Your task to perform on an android device: empty trash in the gmail app Image 0: 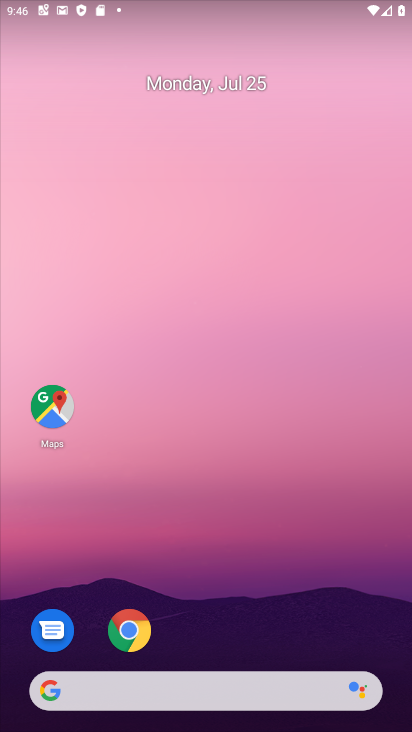
Step 0: press home button
Your task to perform on an android device: empty trash in the gmail app Image 1: 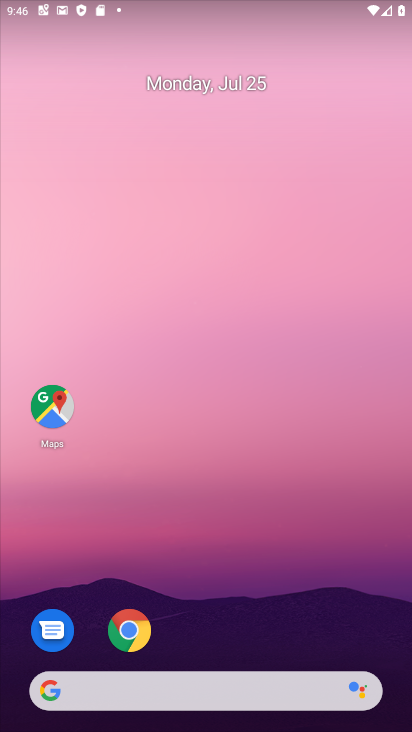
Step 1: drag from (238, 649) to (241, 189)
Your task to perform on an android device: empty trash in the gmail app Image 2: 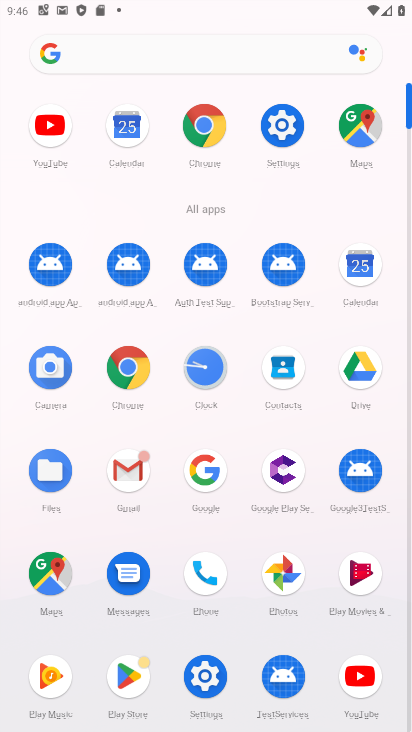
Step 2: click (128, 461)
Your task to perform on an android device: empty trash in the gmail app Image 3: 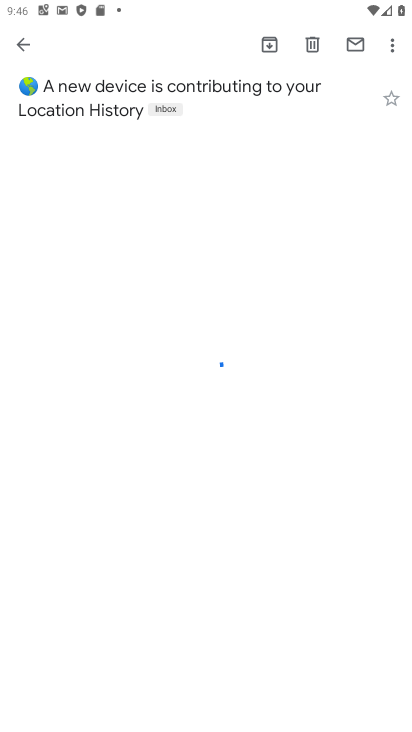
Step 3: click (24, 44)
Your task to perform on an android device: empty trash in the gmail app Image 4: 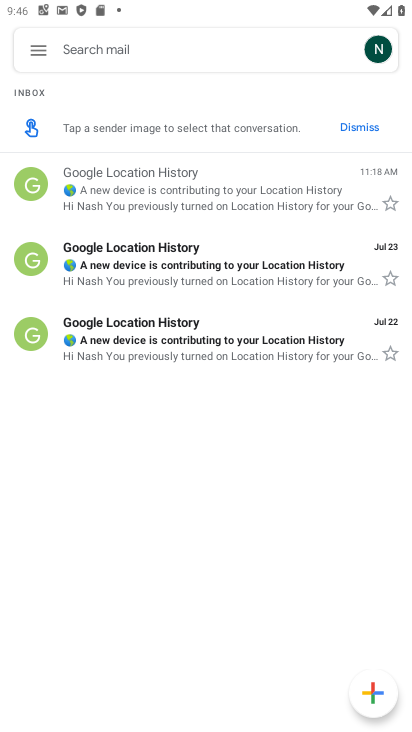
Step 4: click (24, 44)
Your task to perform on an android device: empty trash in the gmail app Image 5: 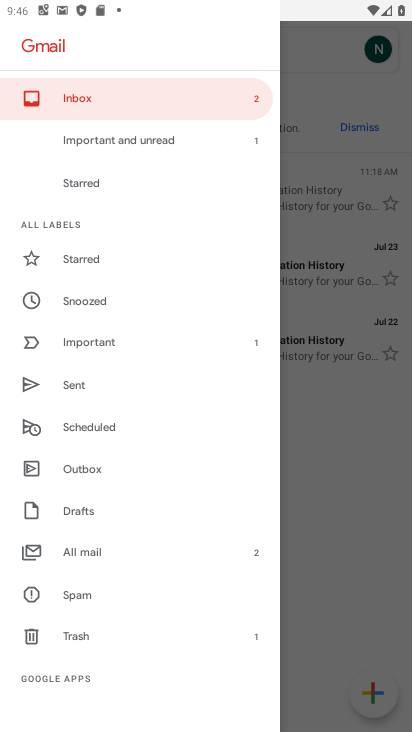
Step 5: click (76, 641)
Your task to perform on an android device: empty trash in the gmail app Image 6: 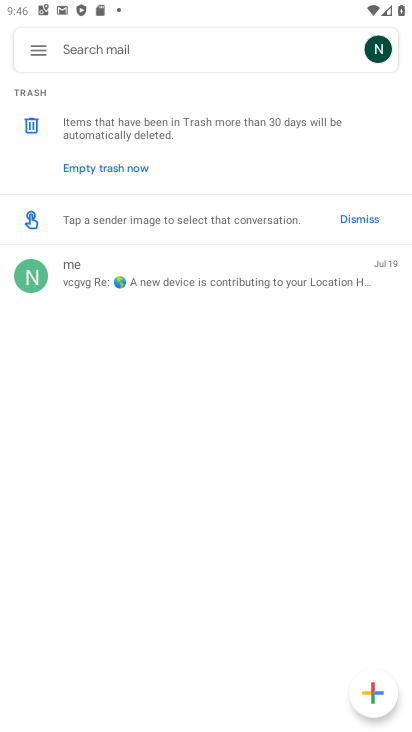
Step 6: click (34, 122)
Your task to perform on an android device: empty trash in the gmail app Image 7: 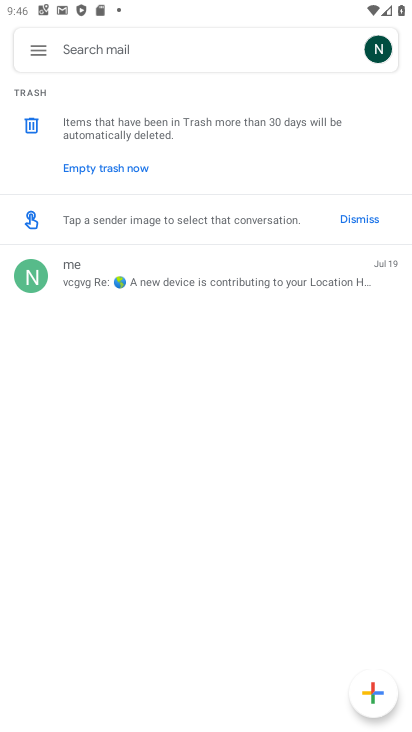
Step 7: click (116, 164)
Your task to perform on an android device: empty trash in the gmail app Image 8: 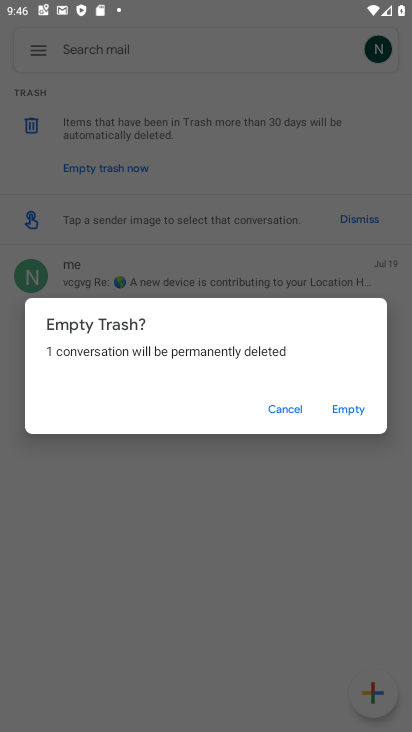
Step 8: click (345, 409)
Your task to perform on an android device: empty trash in the gmail app Image 9: 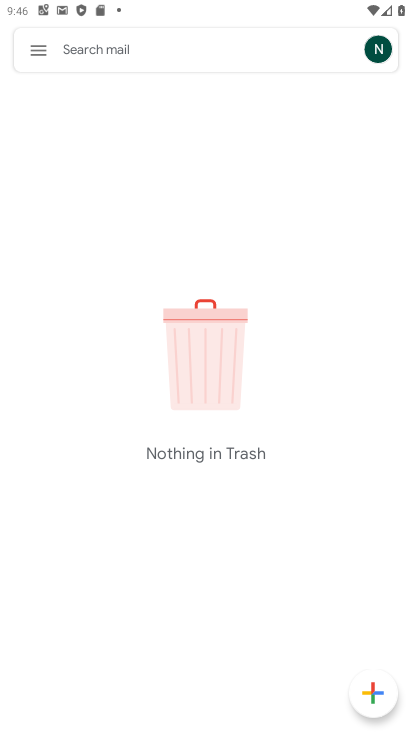
Step 9: task complete